Your task to perform on an android device: turn off picture-in-picture Image 0: 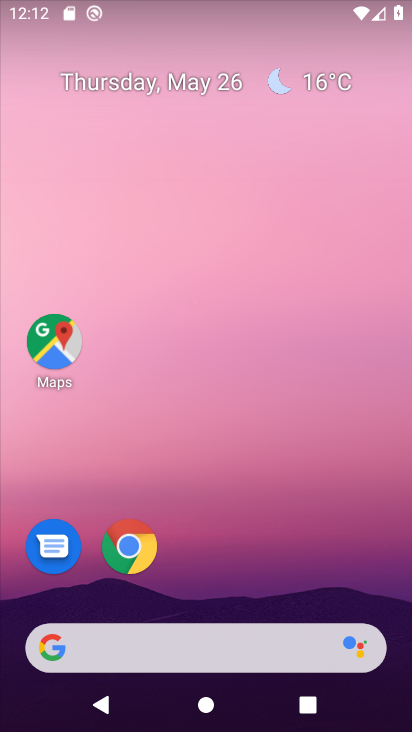
Step 0: drag from (200, 579) to (262, 201)
Your task to perform on an android device: turn off picture-in-picture Image 1: 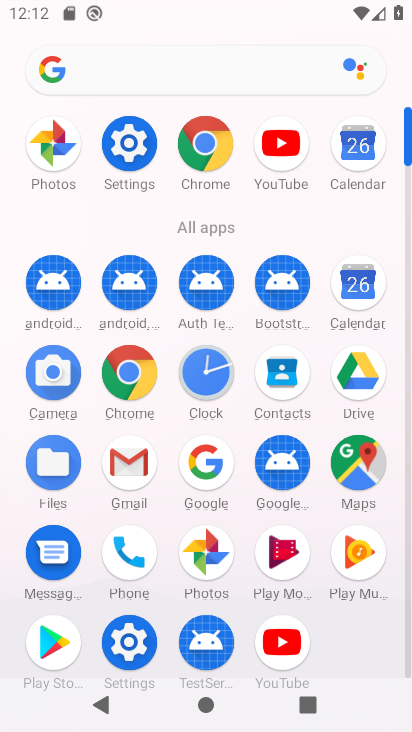
Step 1: click (128, 142)
Your task to perform on an android device: turn off picture-in-picture Image 2: 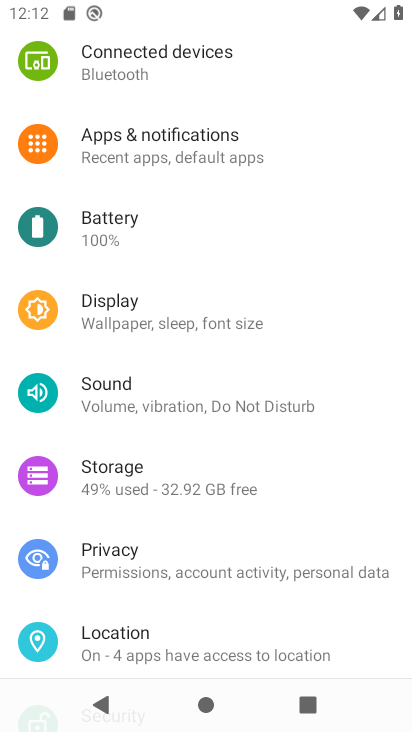
Step 2: click (186, 154)
Your task to perform on an android device: turn off picture-in-picture Image 3: 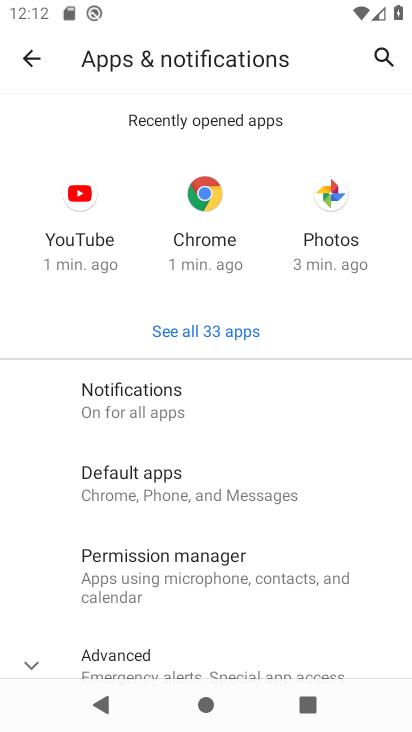
Step 3: drag from (159, 622) to (189, 338)
Your task to perform on an android device: turn off picture-in-picture Image 4: 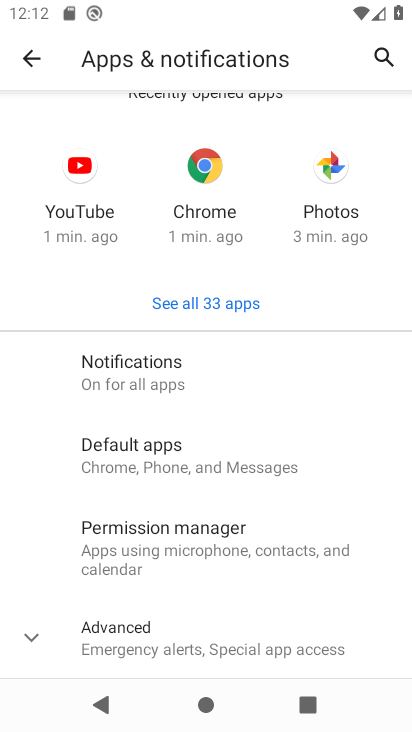
Step 4: click (146, 640)
Your task to perform on an android device: turn off picture-in-picture Image 5: 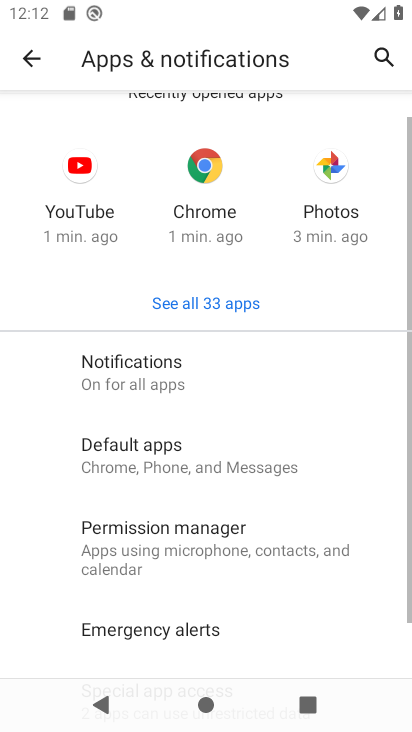
Step 5: drag from (149, 637) to (303, 231)
Your task to perform on an android device: turn off picture-in-picture Image 6: 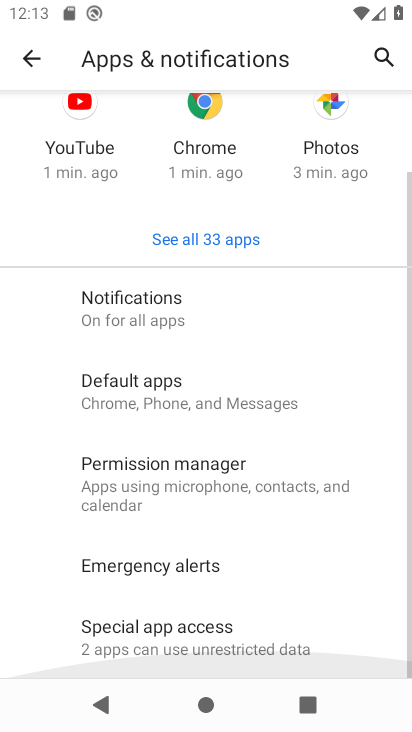
Step 6: click (173, 636)
Your task to perform on an android device: turn off picture-in-picture Image 7: 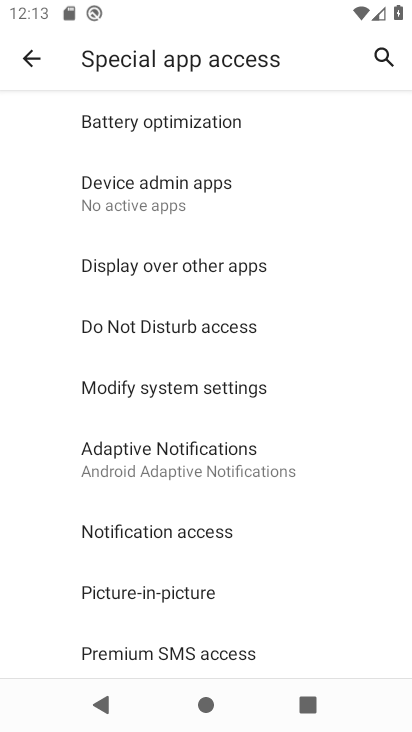
Step 7: click (174, 587)
Your task to perform on an android device: turn off picture-in-picture Image 8: 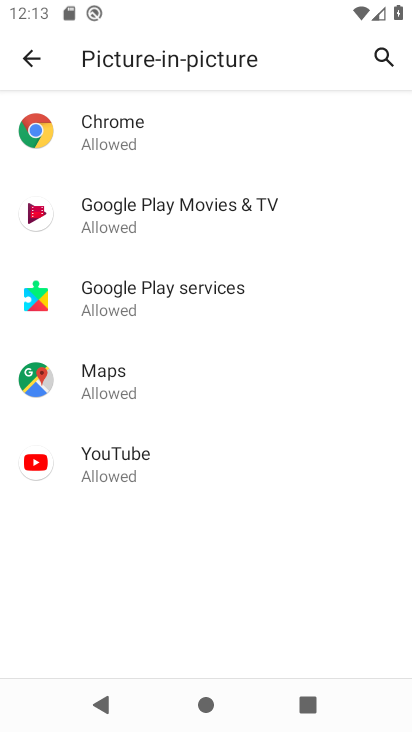
Step 8: click (187, 117)
Your task to perform on an android device: turn off picture-in-picture Image 9: 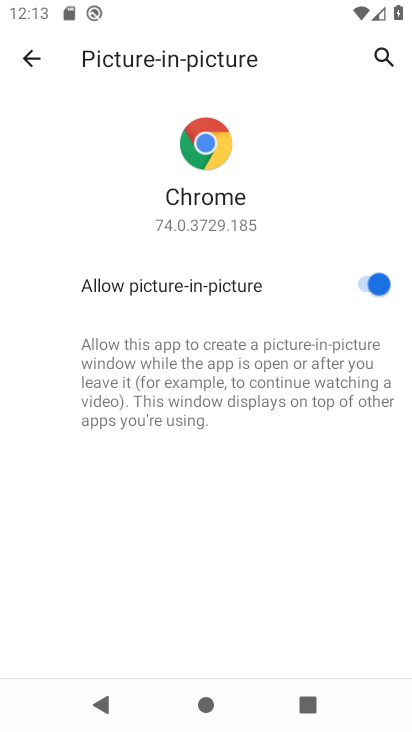
Step 9: click (363, 286)
Your task to perform on an android device: turn off picture-in-picture Image 10: 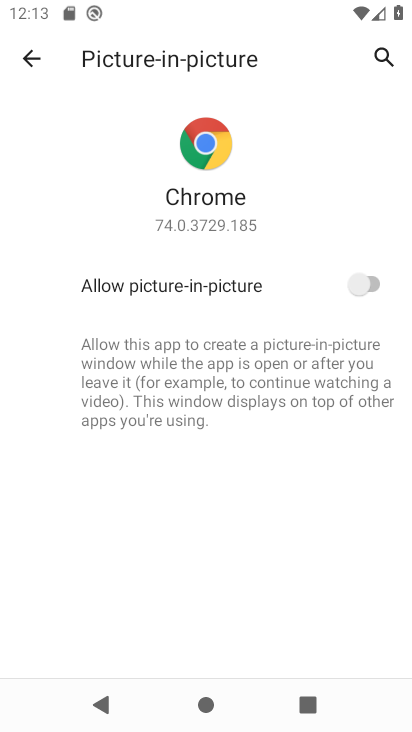
Step 10: task complete